Your task to perform on an android device: Go to Google Image 0: 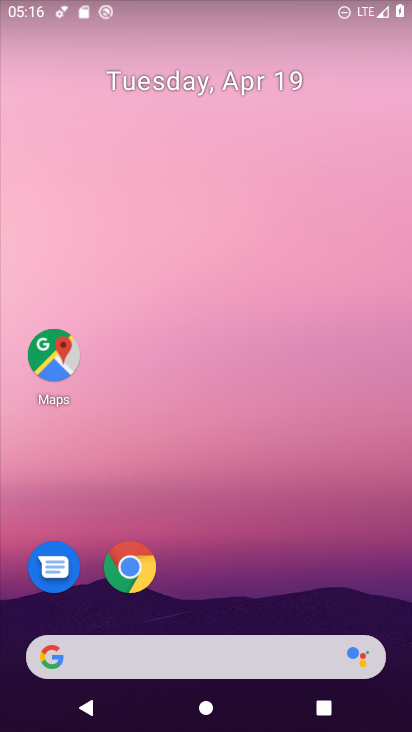
Step 0: drag from (259, 579) to (280, 12)
Your task to perform on an android device: Go to Google Image 1: 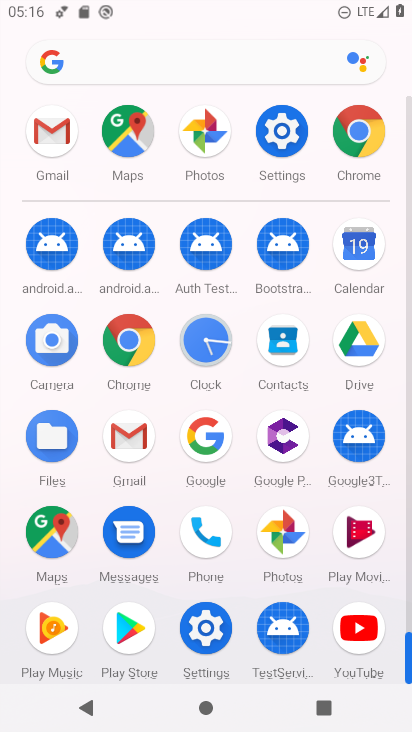
Step 1: click (135, 342)
Your task to perform on an android device: Go to Google Image 2: 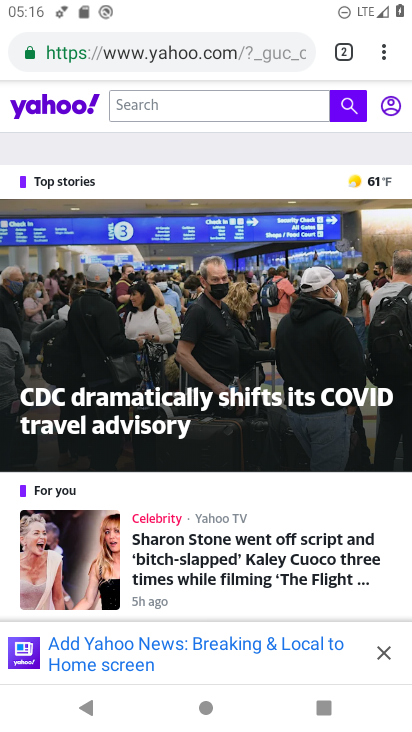
Step 2: task complete